Your task to perform on an android device: Show me popular games on the Play Store Image 0: 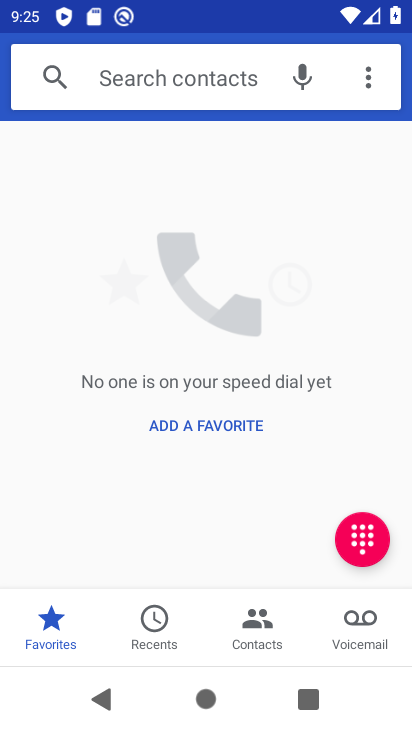
Step 0: press home button
Your task to perform on an android device: Show me popular games on the Play Store Image 1: 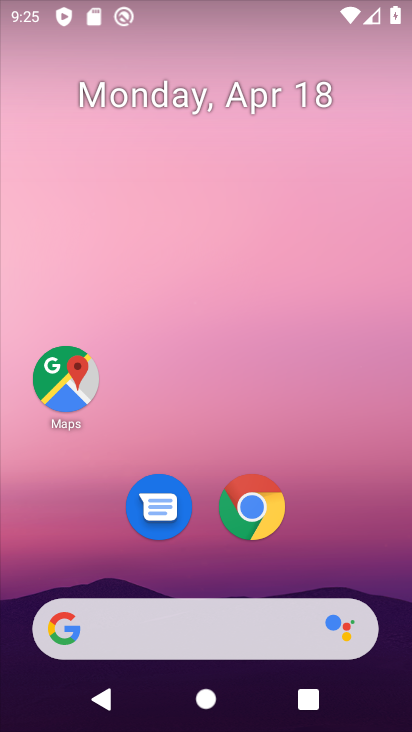
Step 1: drag from (198, 583) to (285, 56)
Your task to perform on an android device: Show me popular games on the Play Store Image 2: 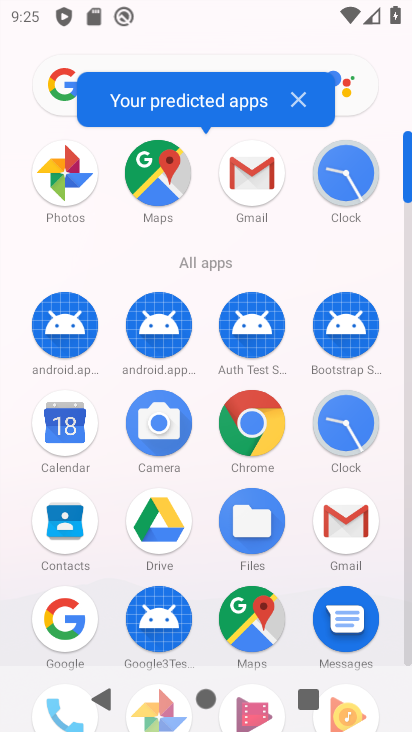
Step 2: drag from (299, 572) to (275, 101)
Your task to perform on an android device: Show me popular games on the Play Store Image 3: 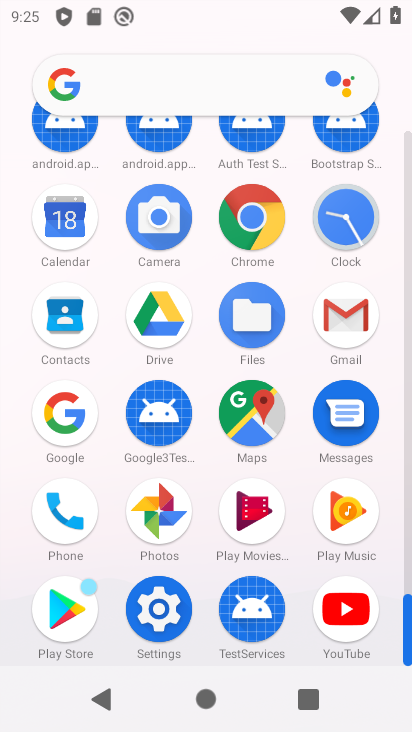
Step 3: click (71, 608)
Your task to perform on an android device: Show me popular games on the Play Store Image 4: 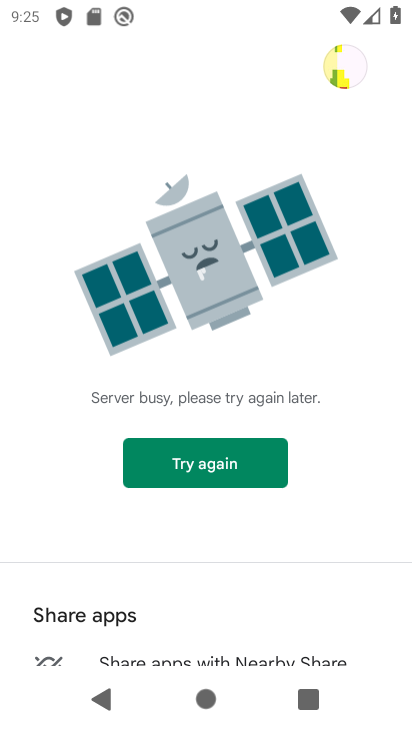
Step 4: click (170, 464)
Your task to perform on an android device: Show me popular games on the Play Store Image 5: 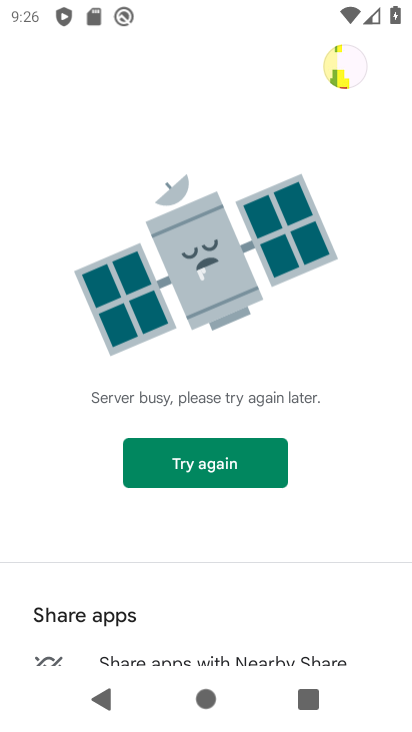
Step 5: click (170, 464)
Your task to perform on an android device: Show me popular games on the Play Store Image 6: 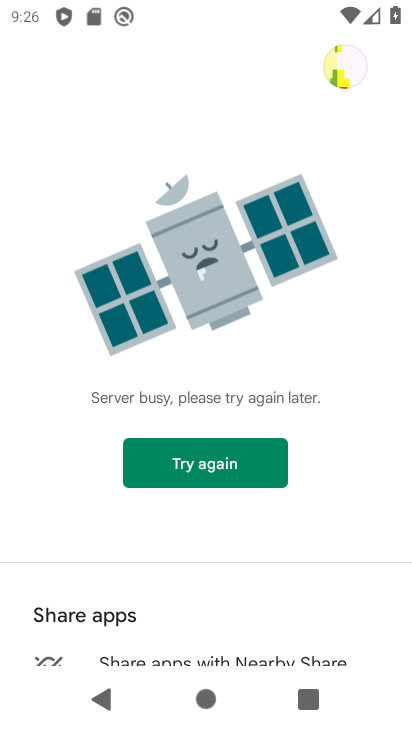
Step 6: task complete